Your task to perform on an android device: find photos in the google photos app Image 0: 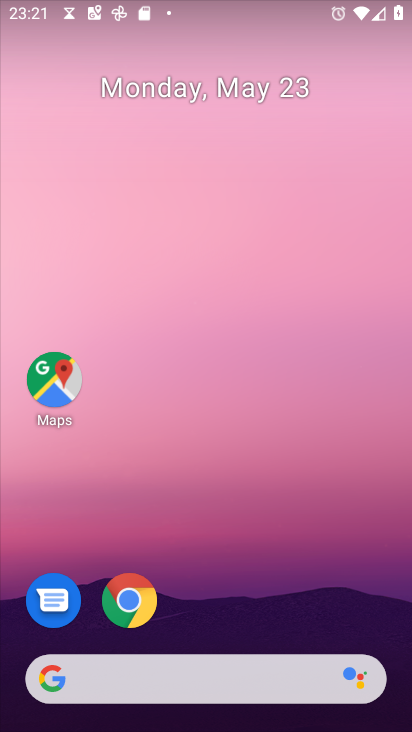
Step 0: drag from (200, 719) to (182, 164)
Your task to perform on an android device: find photos in the google photos app Image 1: 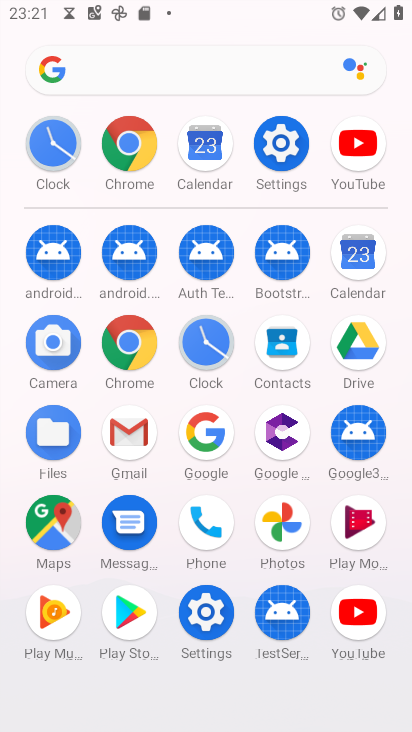
Step 1: click (286, 523)
Your task to perform on an android device: find photos in the google photos app Image 2: 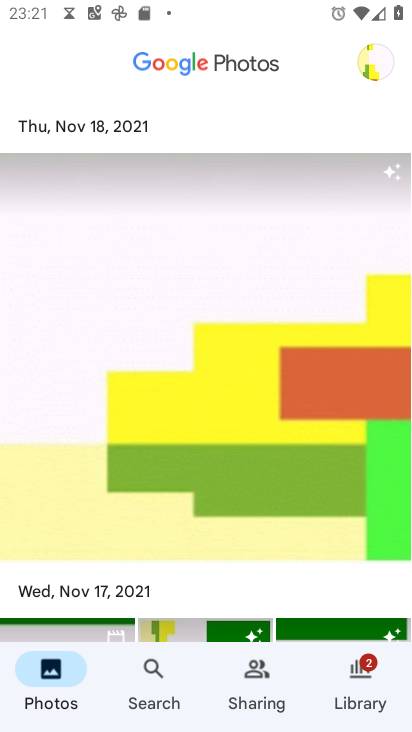
Step 2: drag from (238, 623) to (226, 305)
Your task to perform on an android device: find photos in the google photos app Image 3: 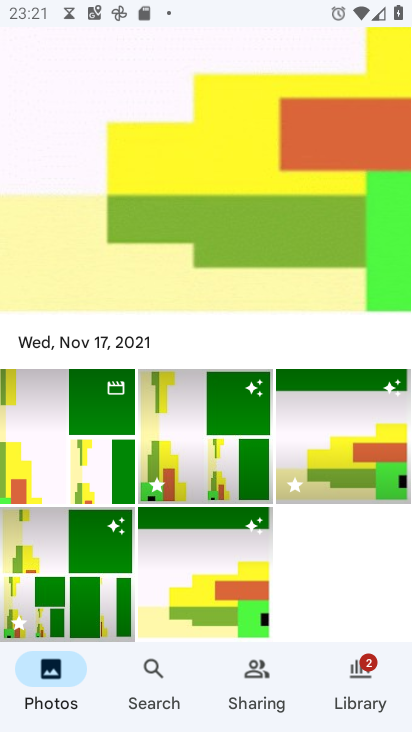
Step 3: click (213, 466)
Your task to perform on an android device: find photos in the google photos app Image 4: 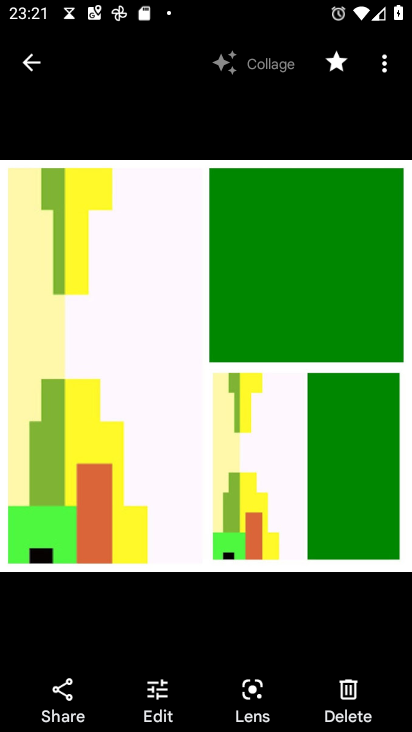
Step 4: task complete